Your task to perform on an android device: Open settings on Google Maps Image 0: 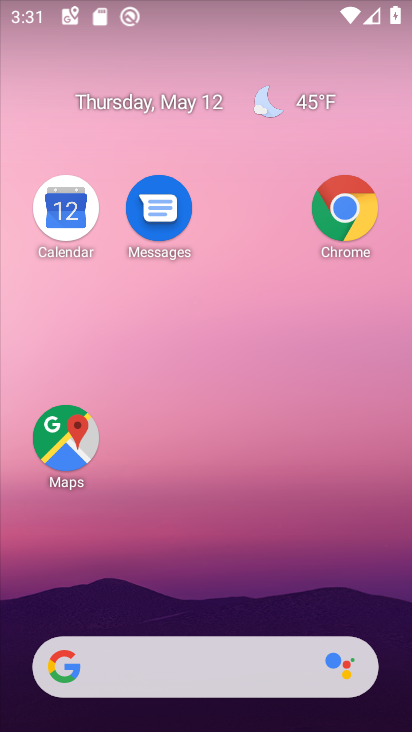
Step 0: drag from (200, 611) to (247, 390)
Your task to perform on an android device: Open settings on Google Maps Image 1: 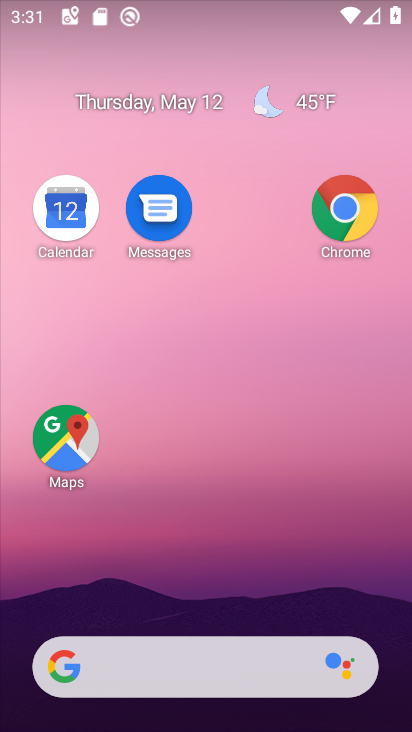
Step 1: drag from (199, 568) to (230, 402)
Your task to perform on an android device: Open settings on Google Maps Image 2: 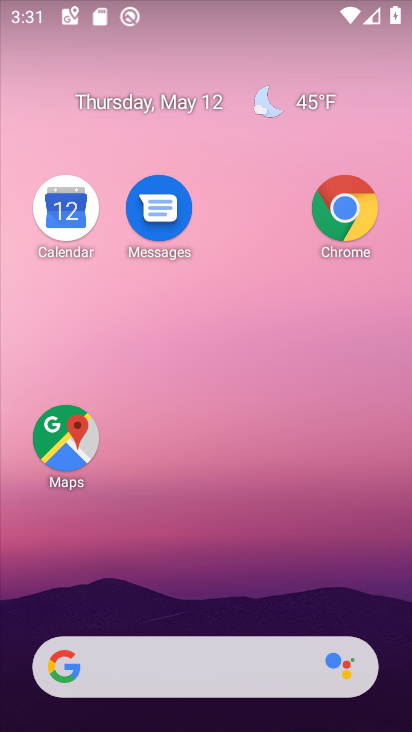
Step 2: drag from (220, 511) to (237, 344)
Your task to perform on an android device: Open settings on Google Maps Image 3: 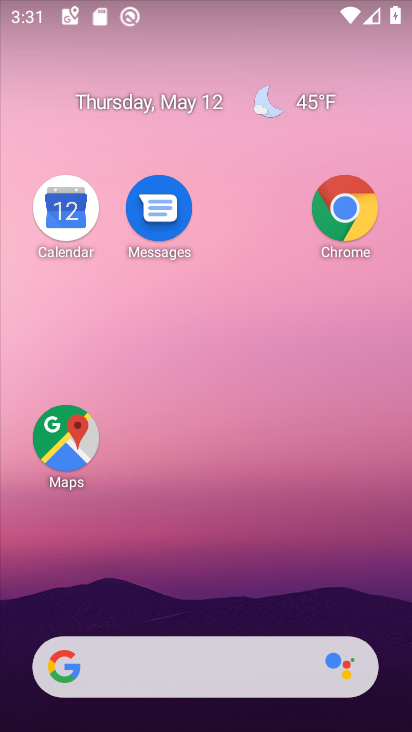
Step 3: drag from (198, 573) to (243, 324)
Your task to perform on an android device: Open settings on Google Maps Image 4: 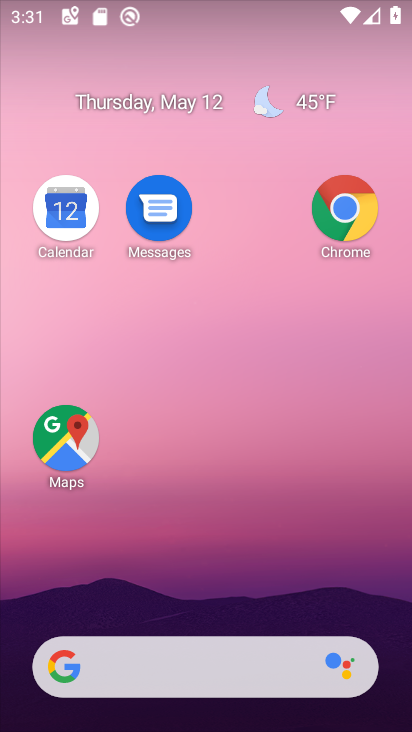
Step 4: click (81, 420)
Your task to perform on an android device: Open settings on Google Maps Image 5: 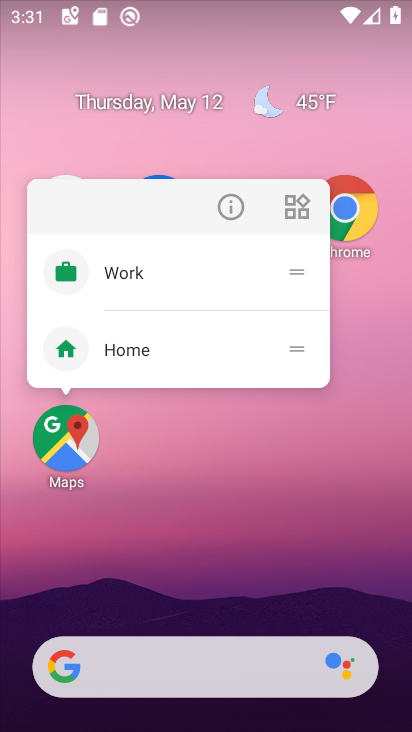
Step 5: drag from (254, 574) to (273, 296)
Your task to perform on an android device: Open settings on Google Maps Image 6: 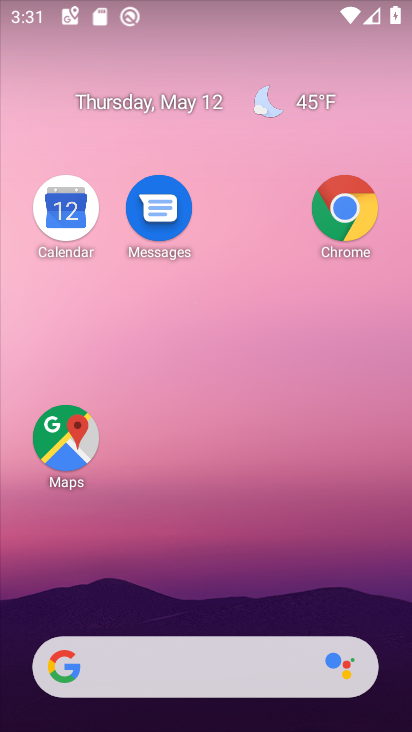
Step 6: click (67, 444)
Your task to perform on an android device: Open settings on Google Maps Image 7: 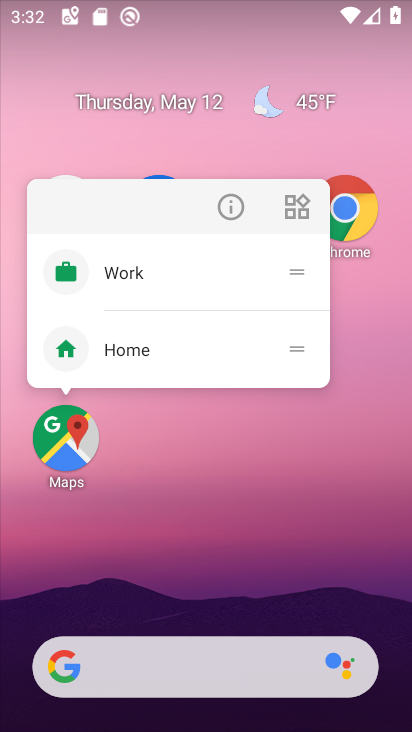
Step 7: drag from (74, 609) to (141, 458)
Your task to perform on an android device: Open settings on Google Maps Image 8: 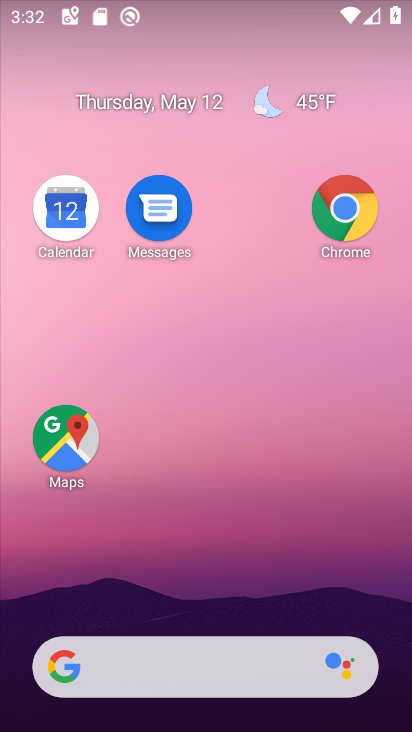
Step 8: drag from (205, 555) to (204, 159)
Your task to perform on an android device: Open settings on Google Maps Image 9: 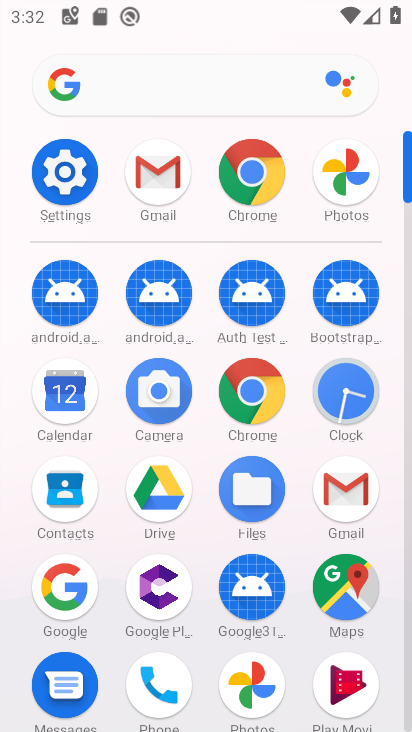
Step 9: click (341, 588)
Your task to perform on an android device: Open settings on Google Maps Image 10: 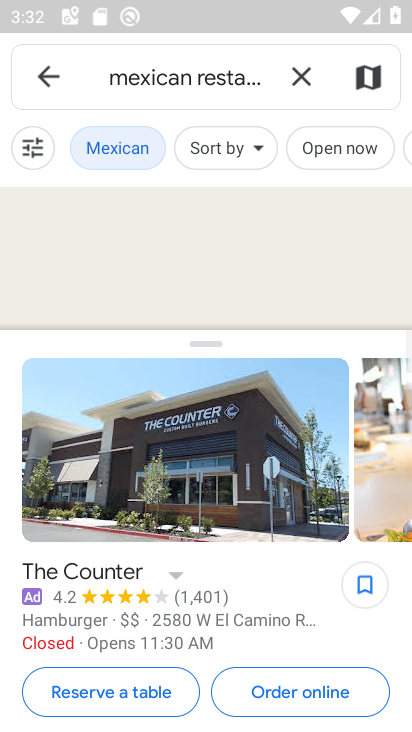
Step 10: click (53, 71)
Your task to perform on an android device: Open settings on Google Maps Image 11: 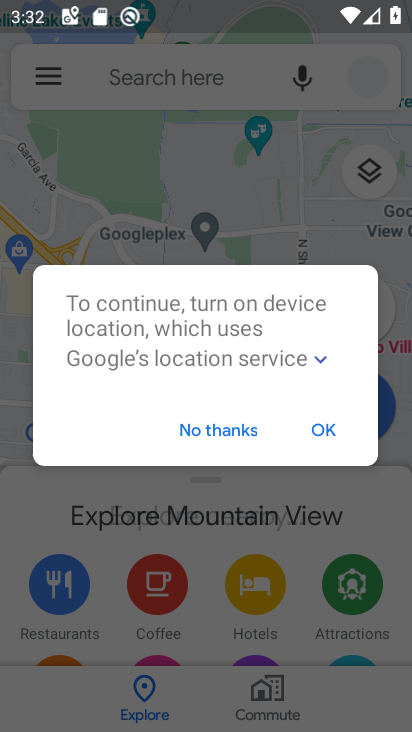
Step 11: click (306, 433)
Your task to perform on an android device: Open settings on Google Maps Image 12: 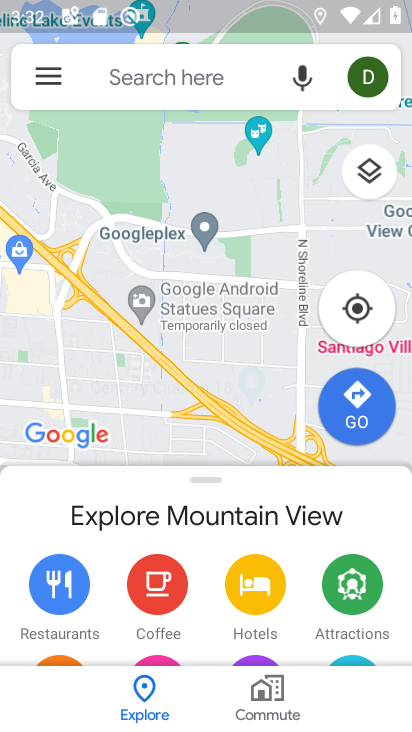
Step 12: click (51, 83)
Your task to perform on an android device: Open settings on Google Maps Image 13: 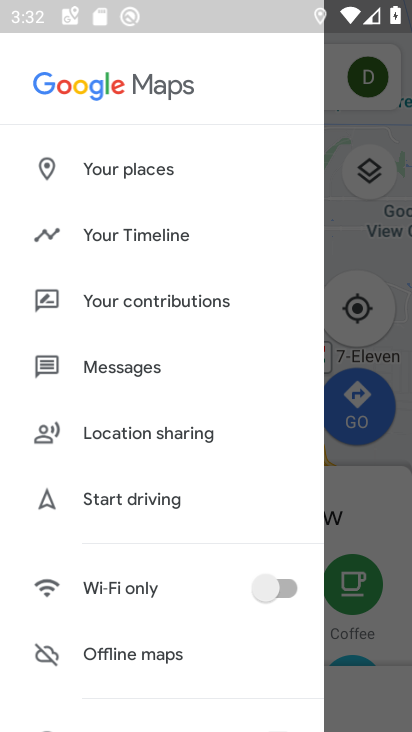
Step 13: drag from (114, 572) to (169, 78)
Your task to perform on an android device: Open settings on Google Maps Image 14: 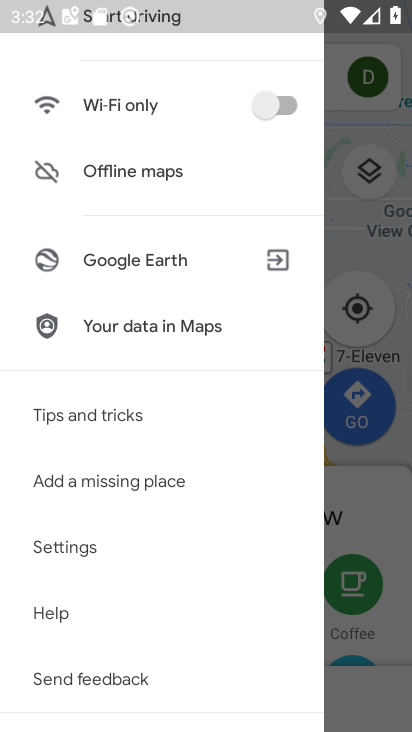
Step 14: click (101, 540)
Your task to perform on an android device: Open settings on Google Maps Image 15: 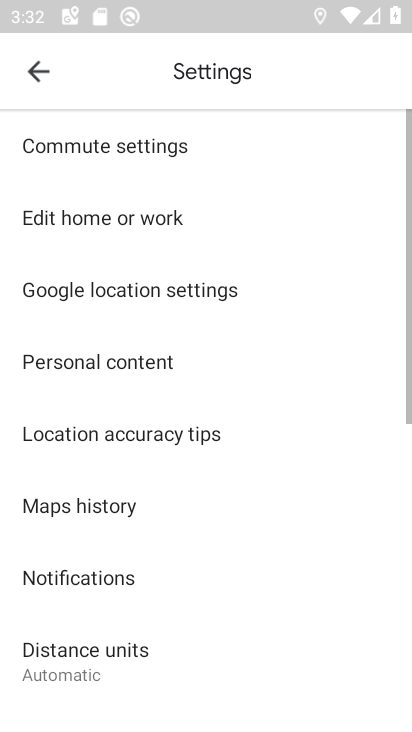
Step 15: task complete